Your task to perform on an android device: turn pop-ups off in chrome Image 0: 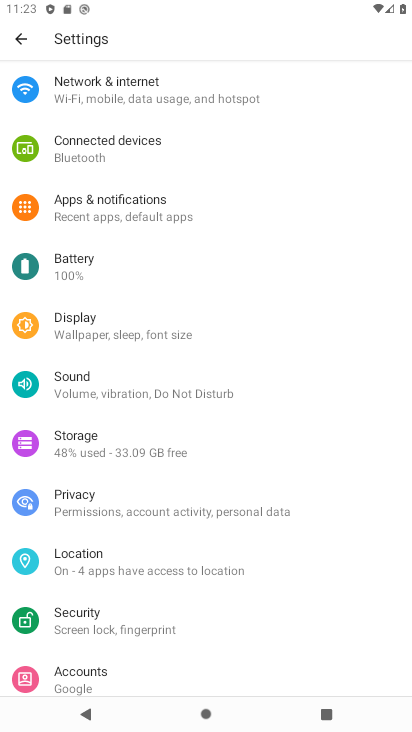
Step 0: press home button
Your task to perform on an android device: turn pop-ups off in chrome Image 1: 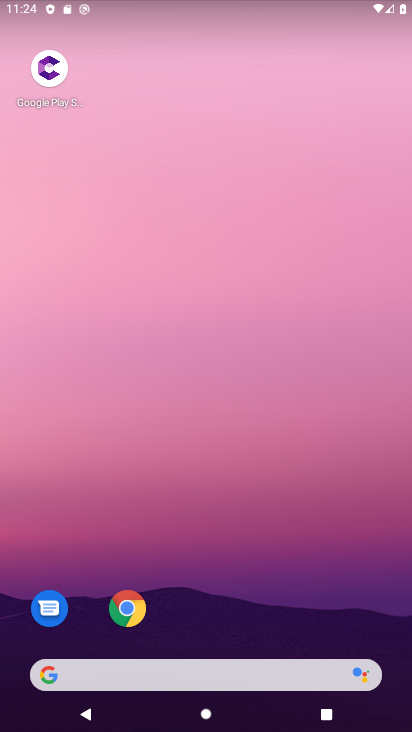
Step 1: drag from (255, 600) to (202, 169)
Your task to perform on an android device: turn pop-ups off in chrome Image 2: 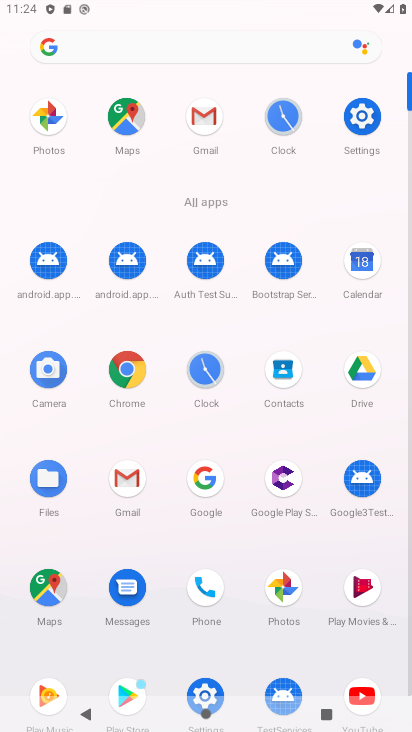
Step 2: click (114, 376)
Your task to perform on an android device: turn pop-ups off in chrome Image 3: 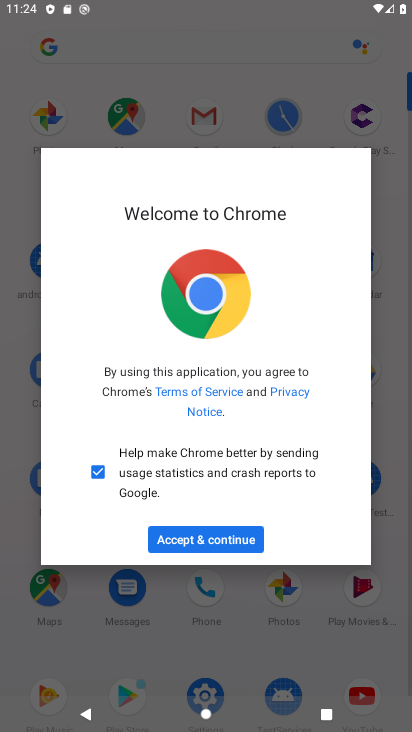
Step 3: click (235, 548)
Your task to perform on an android device: turn pop-ups off in chrome Image 4: 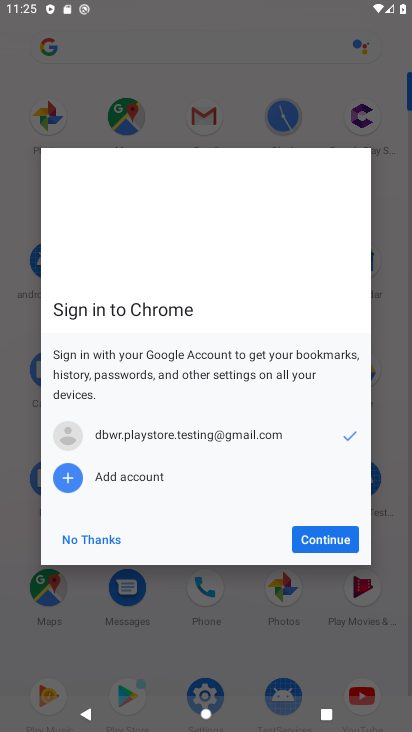
Step 4: click (314, 541)
Your task to perform on an android device: turn pop-ups off in chrome Image 5: 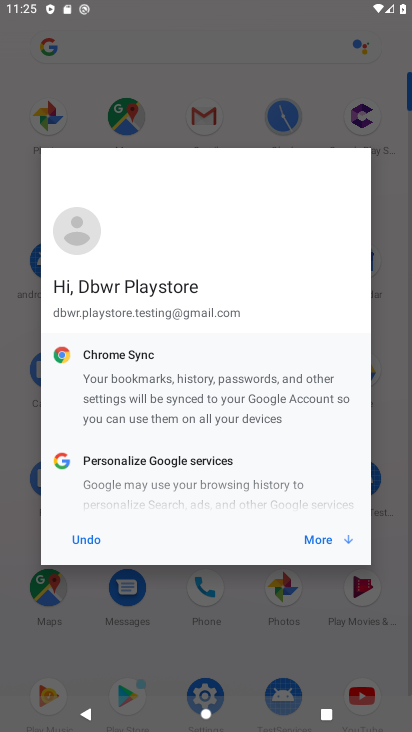
Step 5: click (315, 540)
Your task to perform on an android device: turn pop-ups off in chrome Image 6: 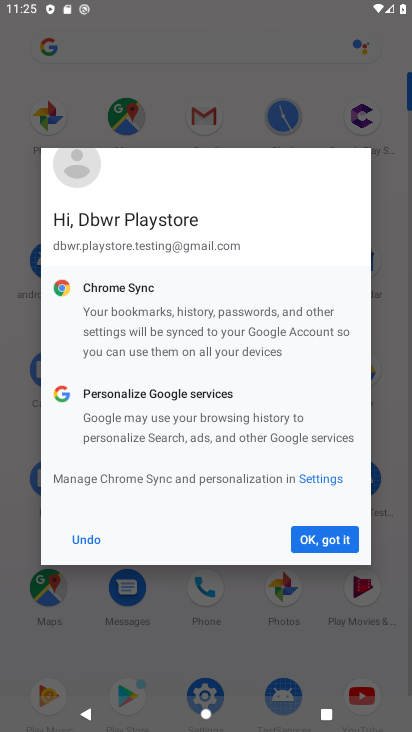
Step 6: click (315, 540)
Your task to perform on an android device: turn pop-ups off in chrome Image 7: 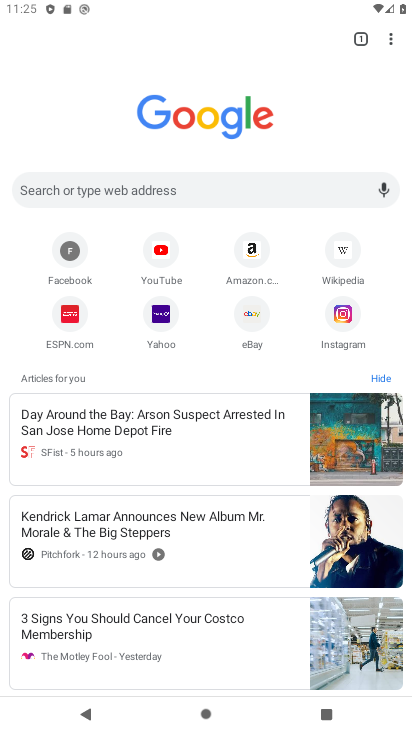
Step 7: drag from (387, 36) to (273, 325)
Your task to perform on an android device: turn pop-ups off in chrome Image 8: 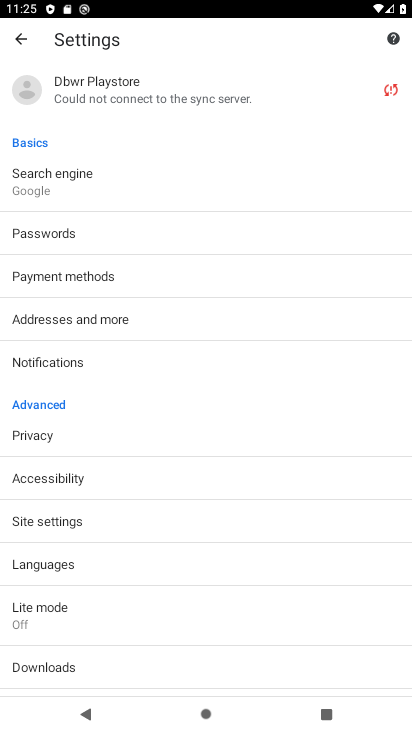
Step 8: drag from (173, 554) to (198, 143)
Your task to perform on an android device: turn pop-ups off in chrome Image 9: 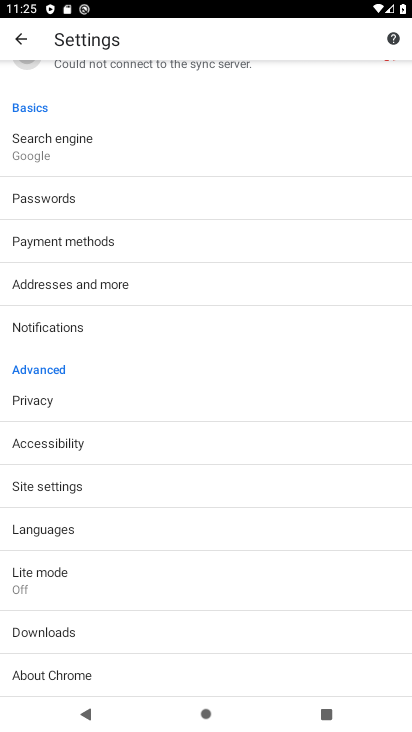
Step 9: click (73, 476)
Your task to perform on an android device: turn pop-ups off in chrome Image 10: 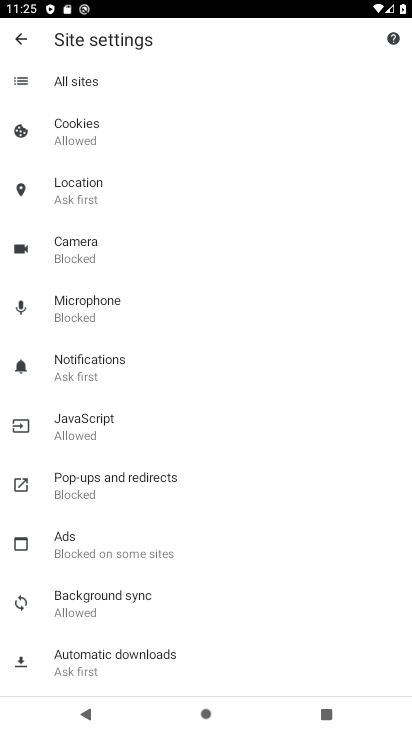
Step 10: click (127, 475)
Your task to perform on an android device: turn pop-ups off in chrome Image 11: 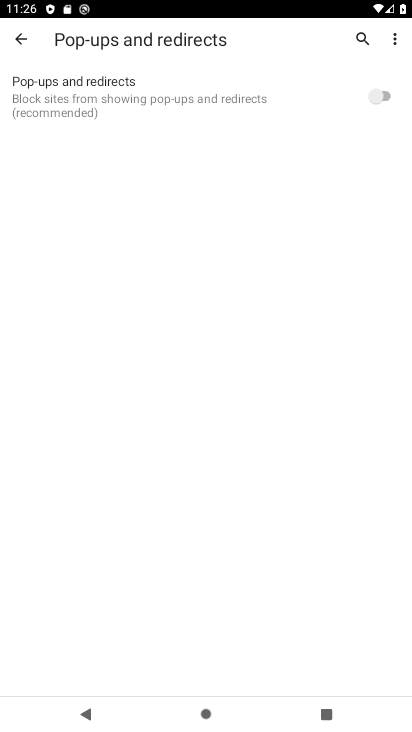
Step 11: task complete